Your task to perform on an android device: Open calendar and show me the third week of next month Image 0: 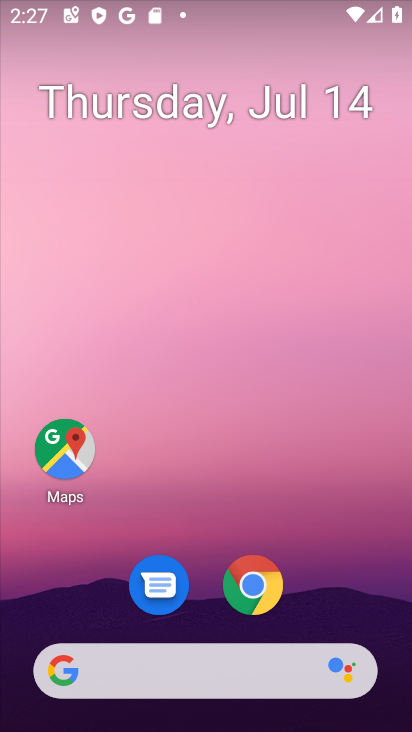
Step 0: drag from (321, 610) to (301, 41)
Your task to perform on an android device: Open calendar and show me the third week of next month Image 1: 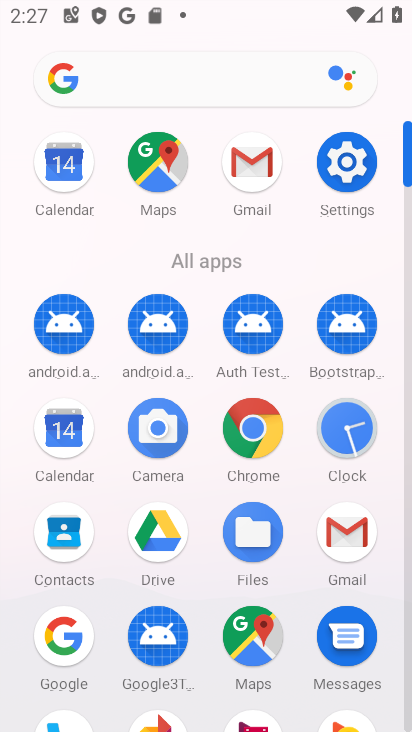
Step 1: click (64, 433)
Your task to perform on an android device: Open calendar and show me the third week of next month Image 2: 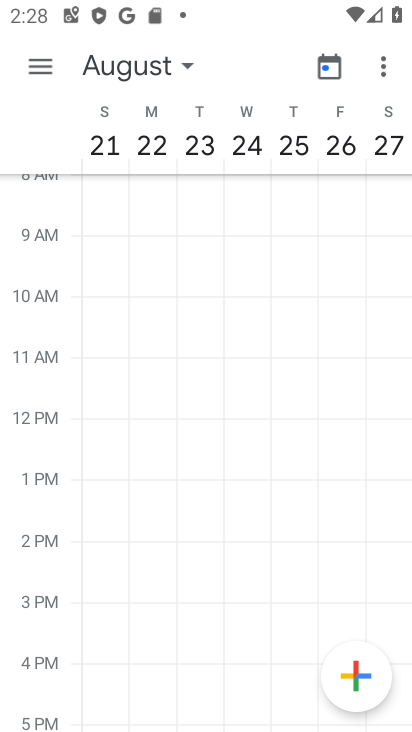
Step 2: task complete